Your task to perform on an android device: Go to Maps Image 0: 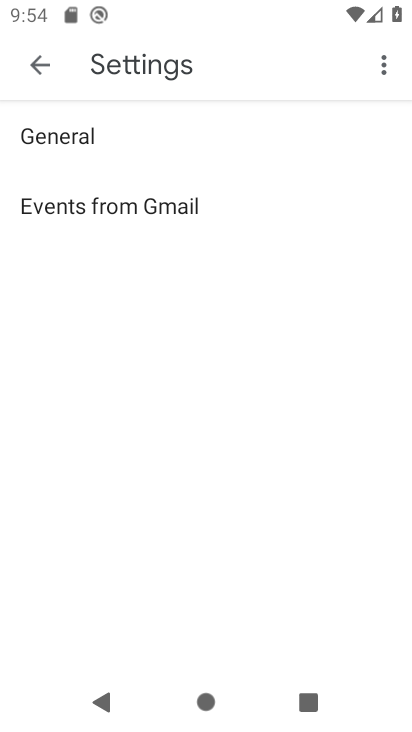
Step 0: drag from (223, 689) to (285, 352)
Your task to perform on an android device: Go to Maps Image 1: 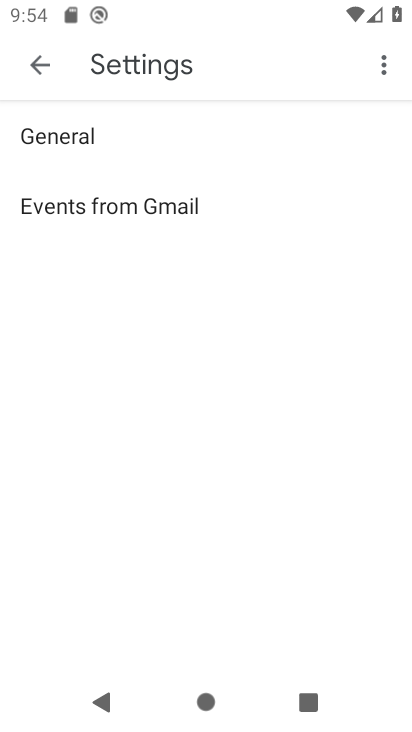
Step 1: press home button
Your task to perform on an android device: Go to Maps Image 2: 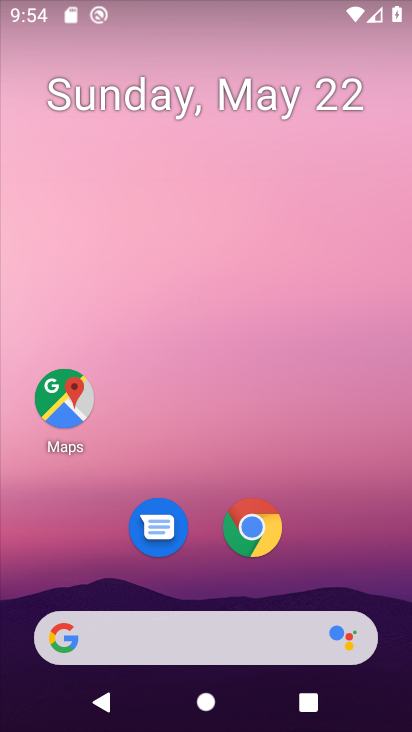
Step 2: drag from (223, 636) to (302, 77)
Your task to perform on an android device: Go to Maps Image 3: 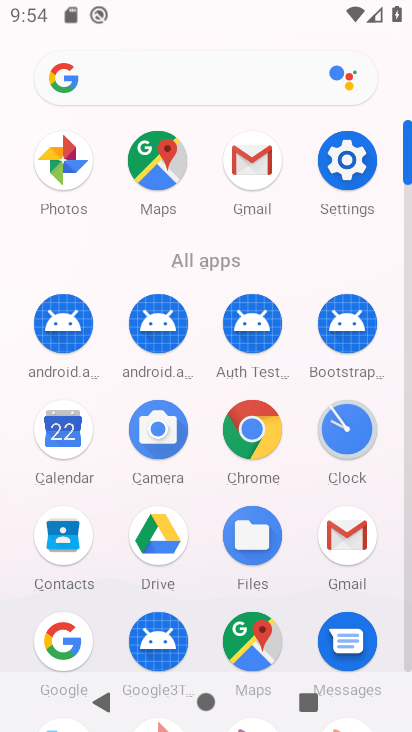
Step 3: drag from (235, 465) to (267, 158)
Your task to perform on an android device: Go to Maps Image 4: 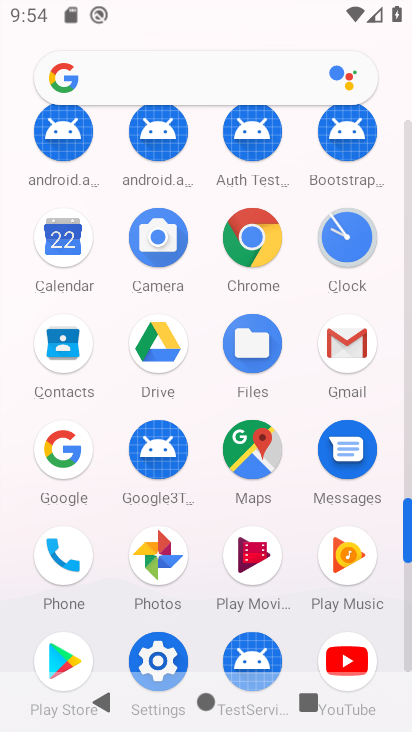
Step 4: click (256, 458)
Your task to perform on an android device: Go to Maps Image 5: 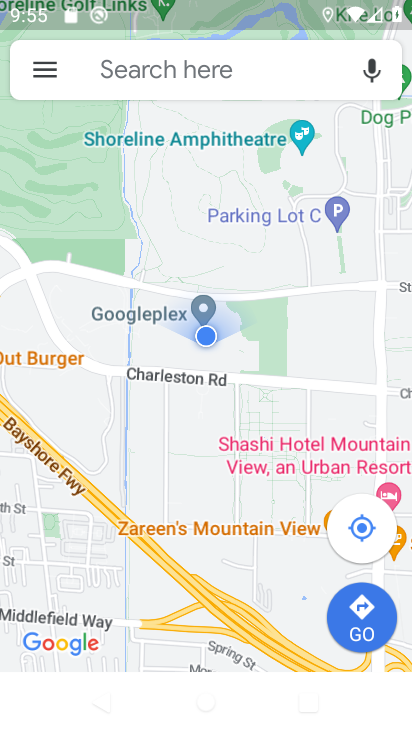
Step 5: task complete